Your task to perform on an android device: Clear the cart on bestbuy. Search for "bose soundlink" on bestbuy, select the first entry, add it to the cart, then select checkout. Image 0: 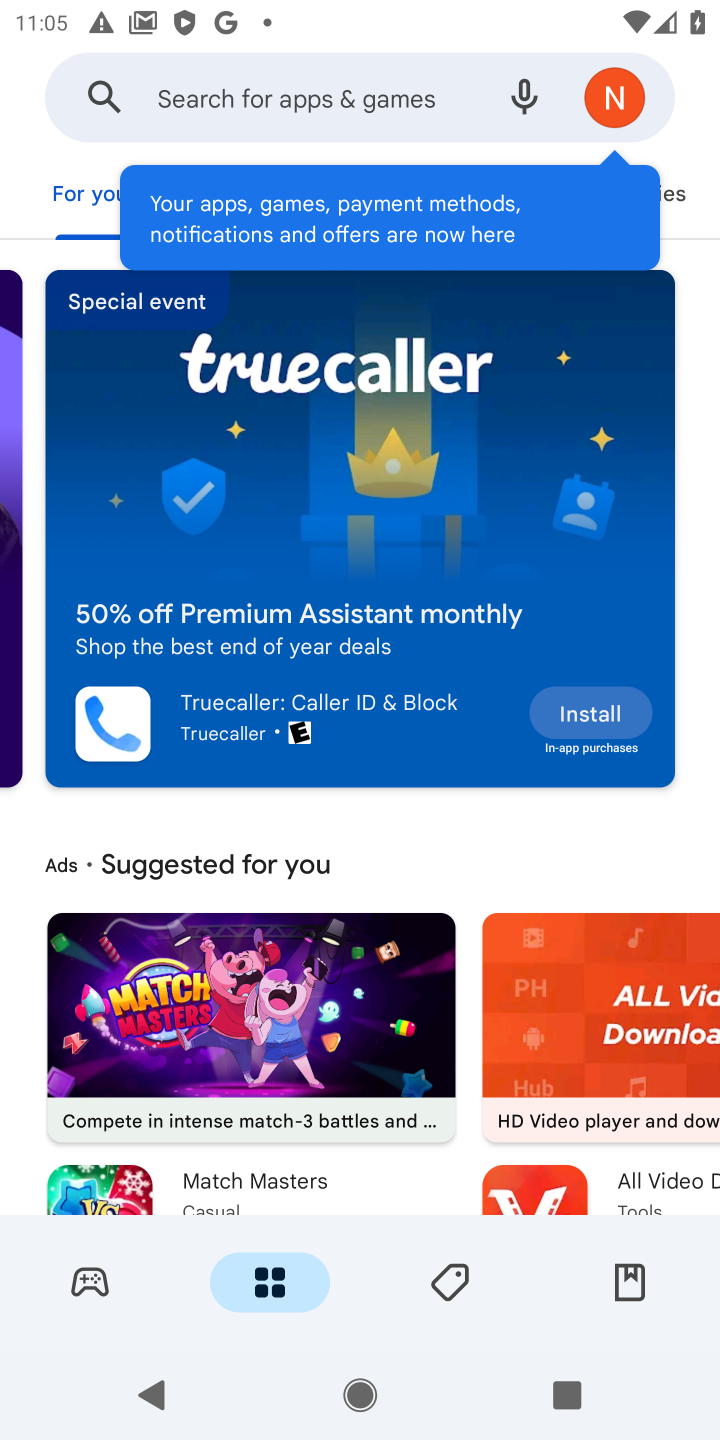
Step 0: press home button
Your task to perform on an android device: Clear the cart on bestbuy. Search for "bose soundlink" on bestbuy, select the first entry, add it to the cart, then select checkout. Image 1: 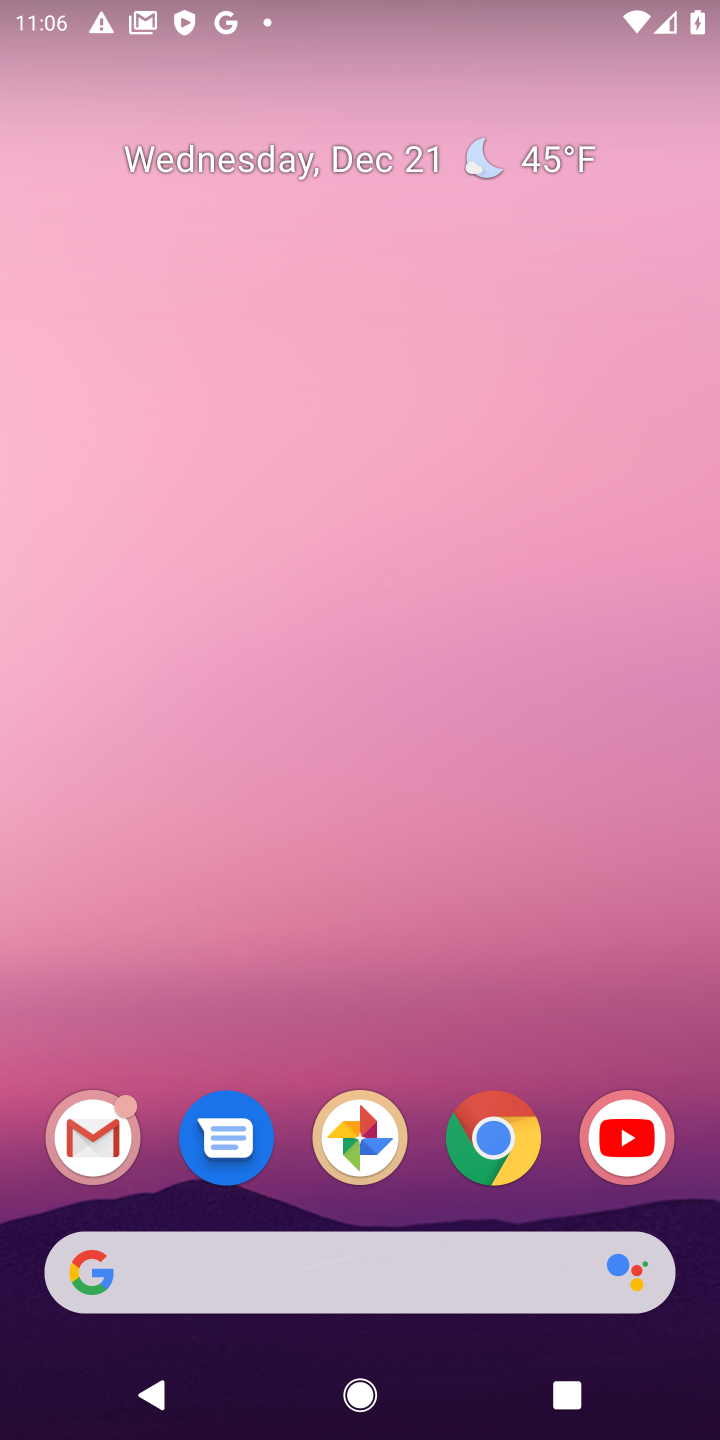
Step 1: click (501, 1144)
Your task to perform on an android device: Clear the cart on bestbuy. Search for "bose soundlink" on bestbuy, select the first entry, add it to the cart, then select checkout. Image 2: 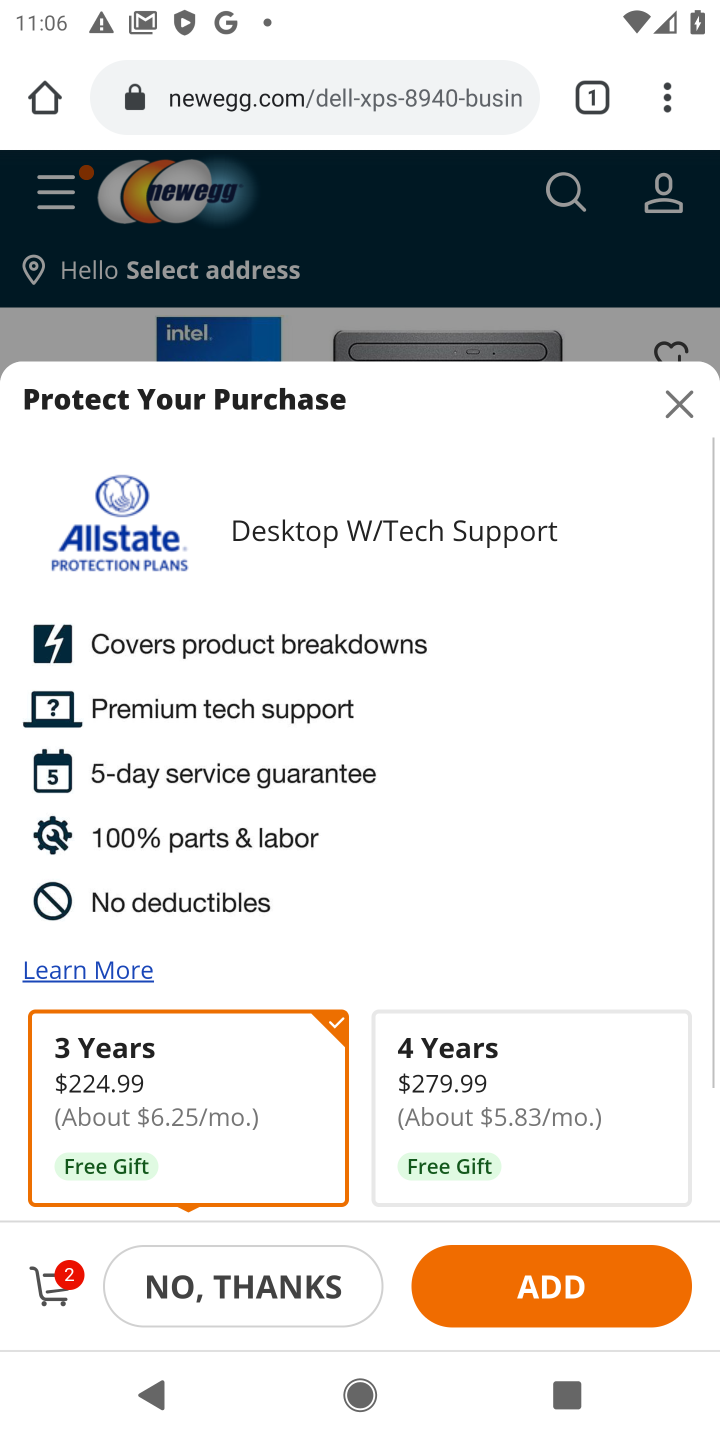
Step 2: click (263, 104)
Your task to perform on an android device: Clear the cart on bestbuy. Search for "bose soundlink" on bestbuy, select the first entry, add it to the cart, then select checkout. Image 3: 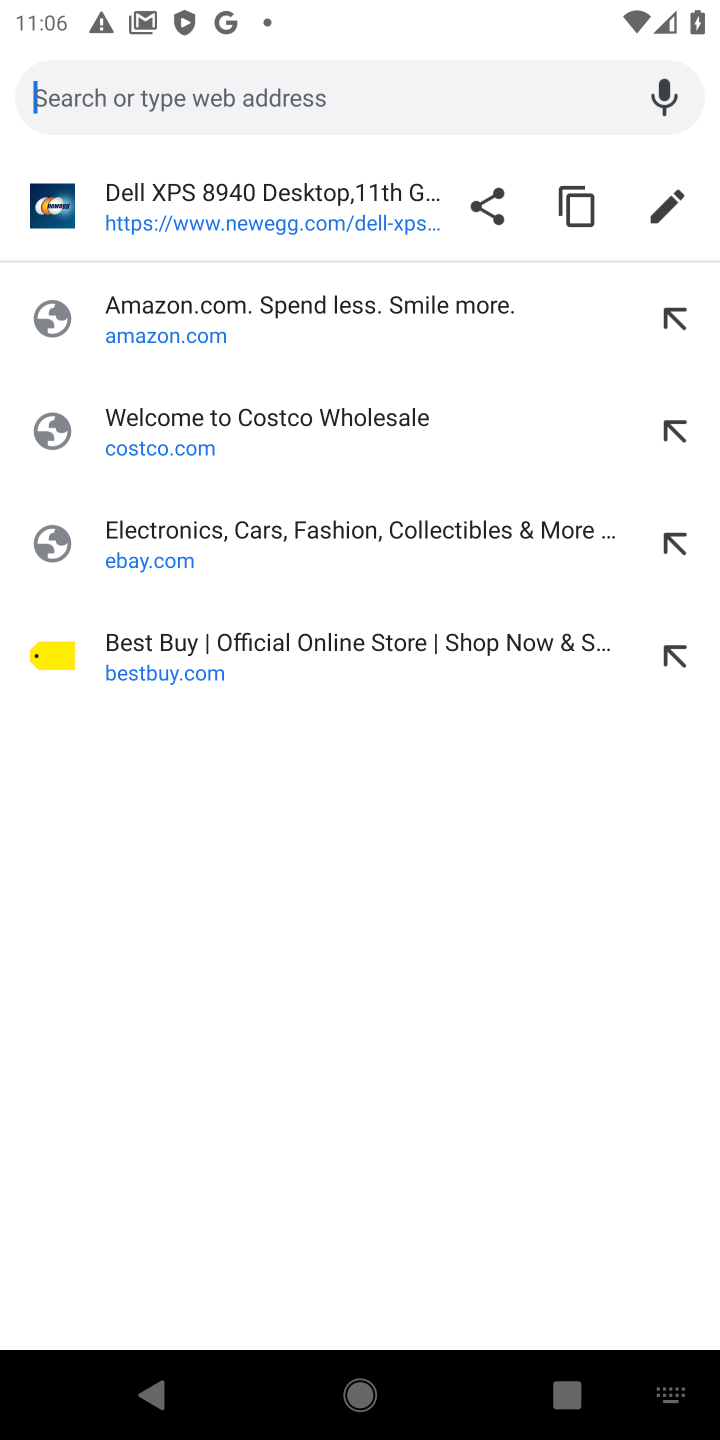
Step 3: click (146, 656)
Your task to perform on an android device: Clear the cart on bestbuy. Search for "bose soundlink" on bestbuy, select the first entry, add it to the cart, then select checkout. Image 4: 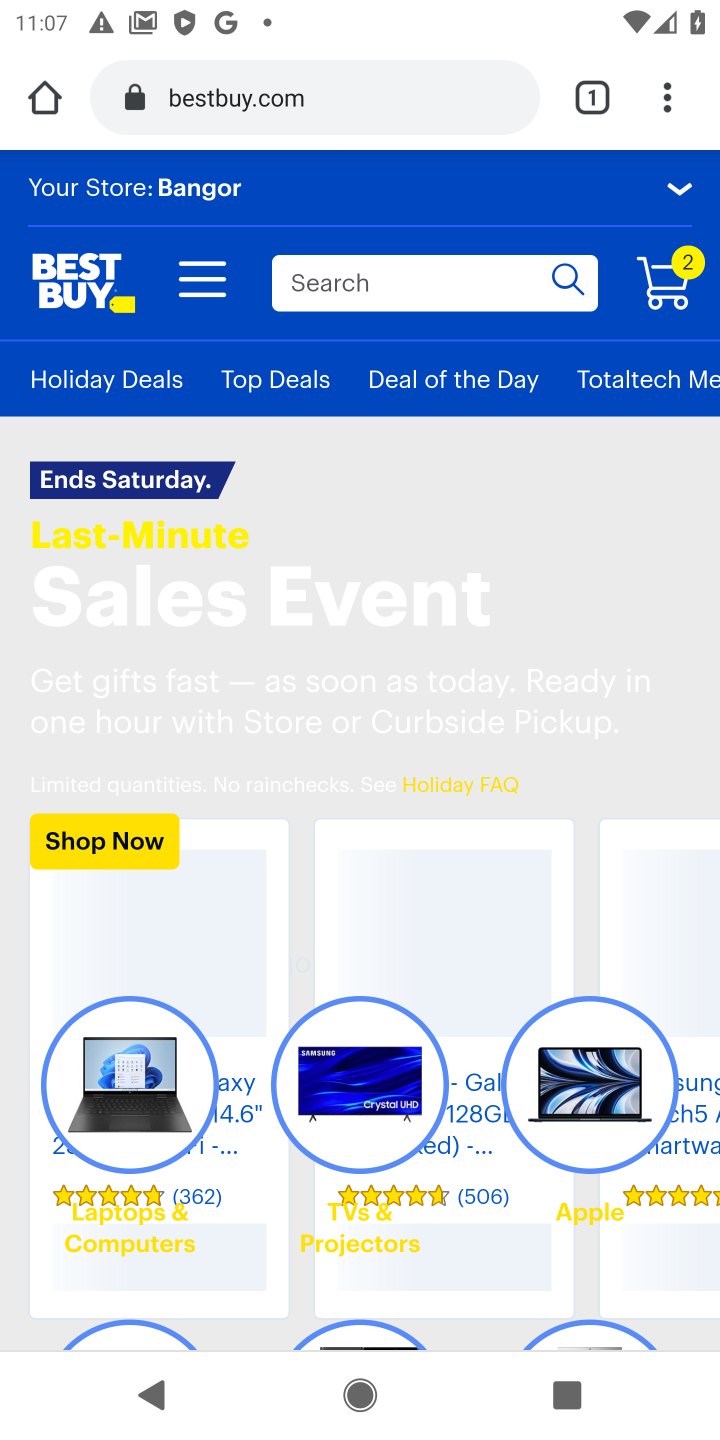
Step 4: click (675, 290)
Your task to perform on an android device: Clear the cart on bestbuy. Search for "bose soundlink" on bestbuy, select the first entry, add it to the cart, then select checkout. Image 5: 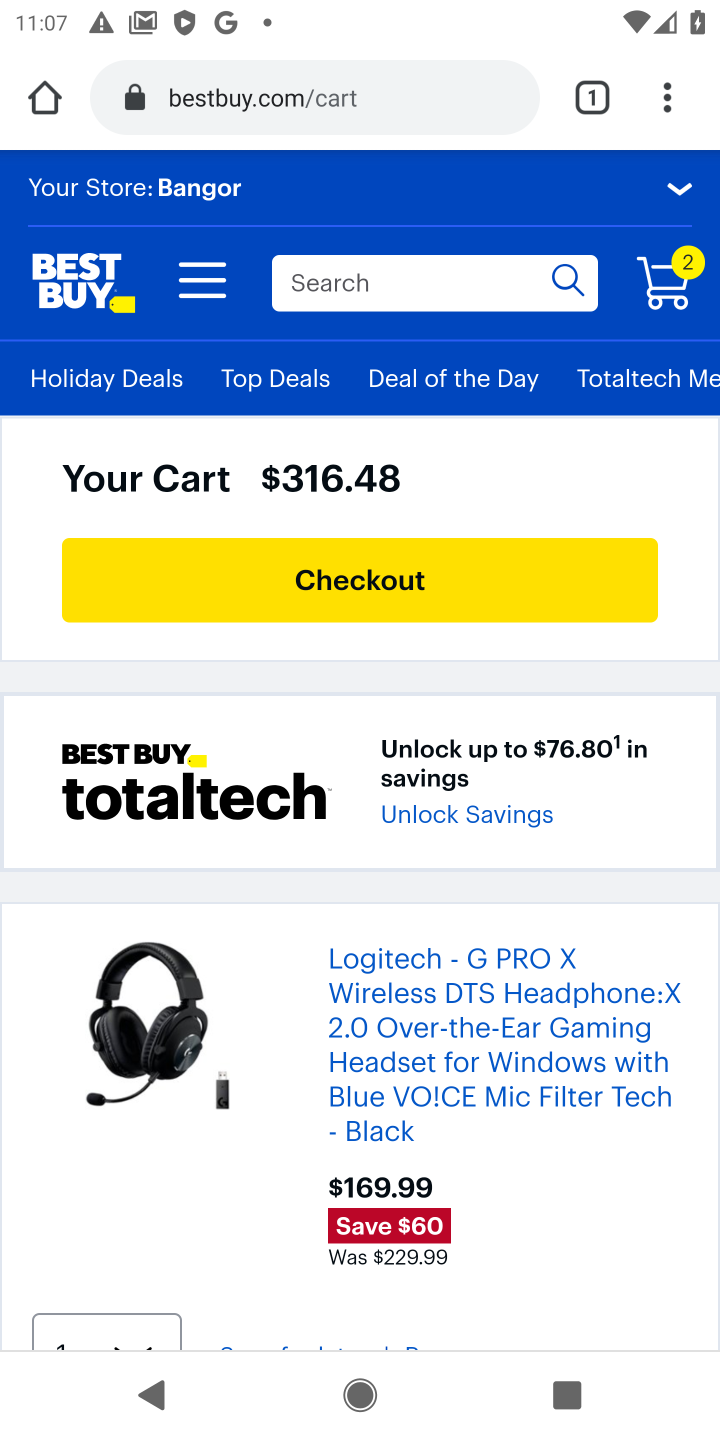
Step 5: drag from (295, 1074) to (372, 632)
Your task to perform on an android device: Clear the cart on bestbuy. Search for "bose soundlink" on bestbuy, select the first entry, add it to the cart, then select checkout. Image 6: 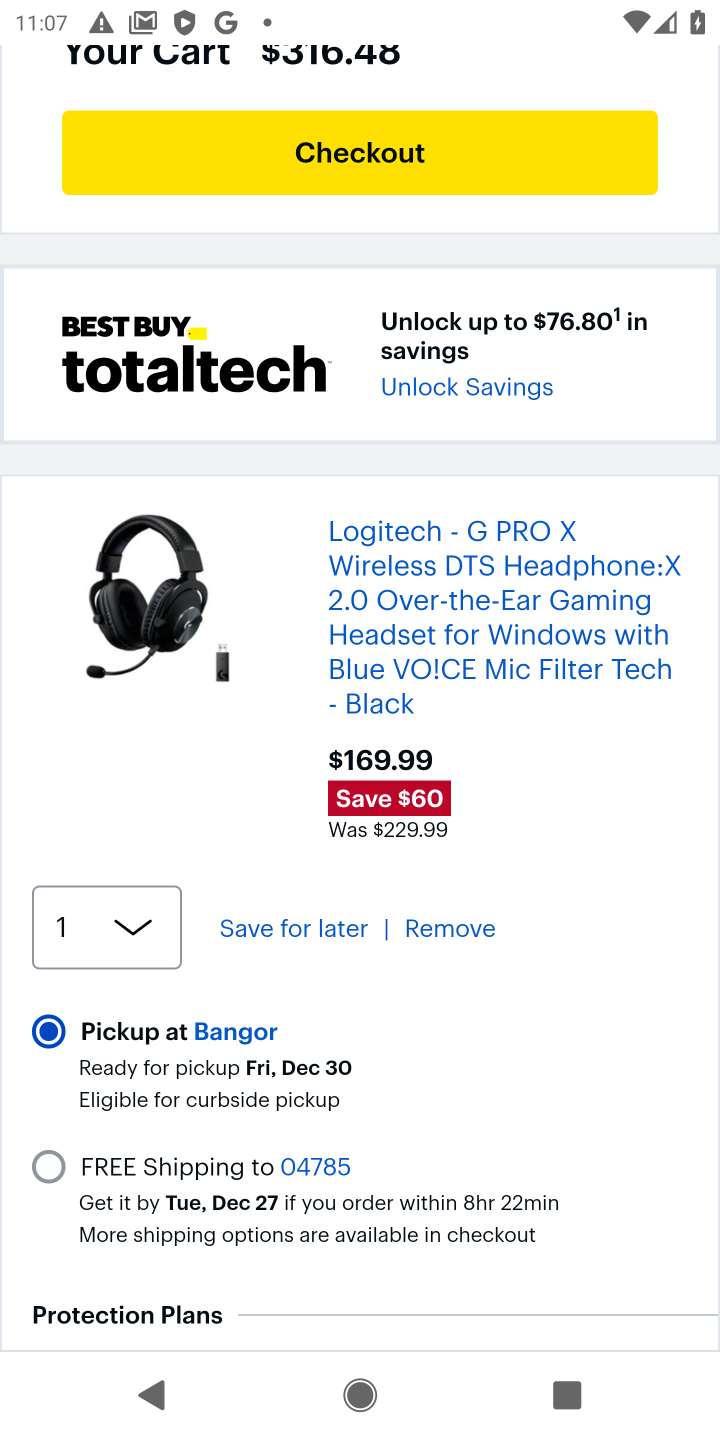
Step 6: click (444, 926)
Your task to perform on an android device: Clear the cart on bestbuy. Search for "bose soundlink" on bestbuy, select the first entry, add it to the cart, then select checkout. Image 7: 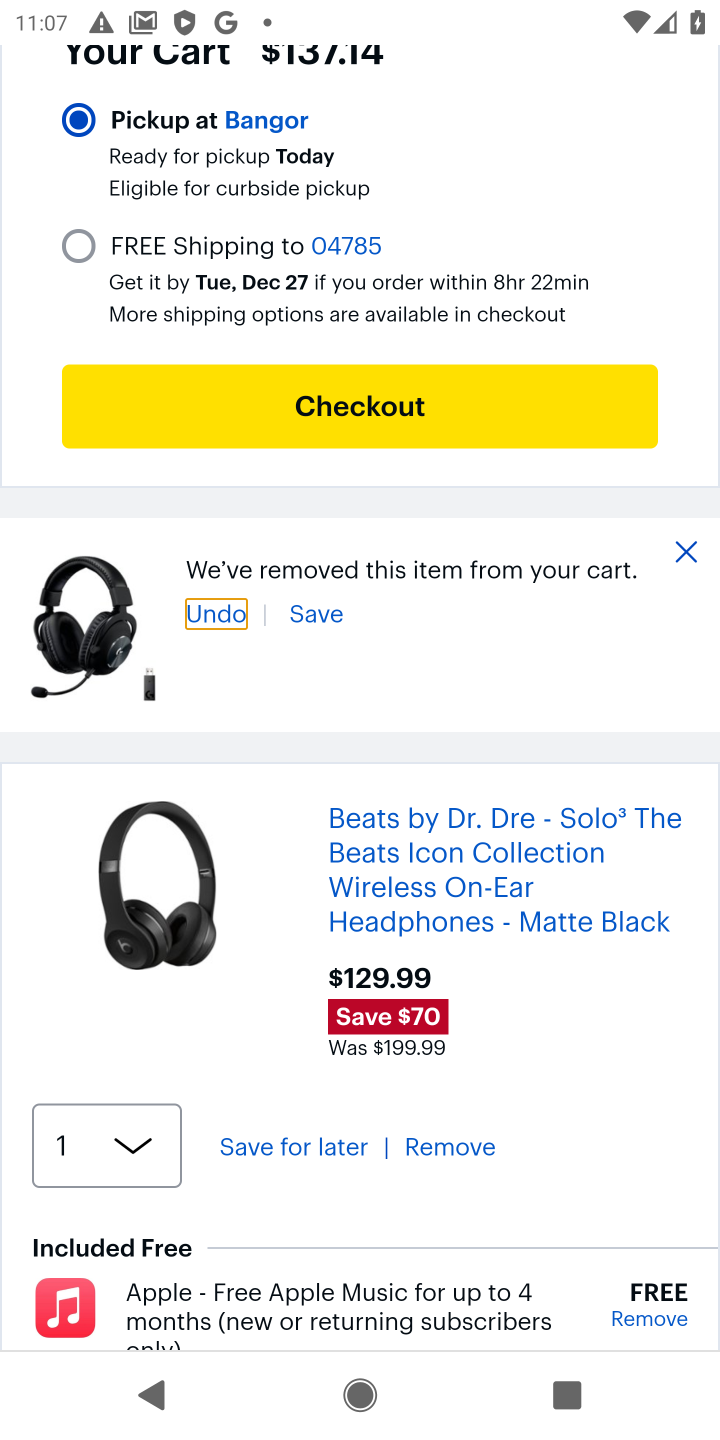
Step 7: drag from (432, 947) to (457, 530)
Your task to perform on an android device: Clear the cart on bestbuy. Search for "bose soundlink" on bestbuy, select the first entry, add it to the cart, then select checkout. Image 8: 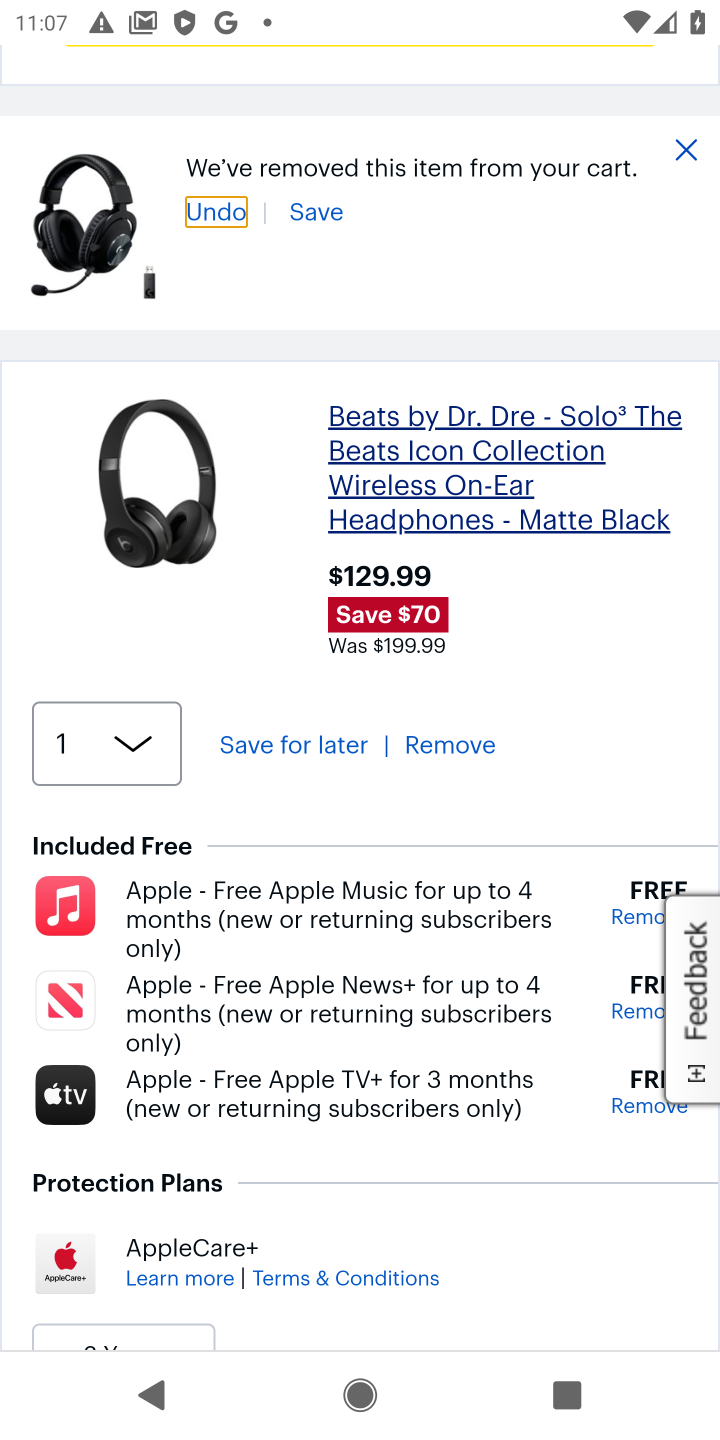
Step 8: click (449, 746)
Your task to perform on an android device: Clear the cart on bestbuy. Search for "bose soundlink" on bestbuy, select the first entry, add it to the cart, then select checkout. Image 9: 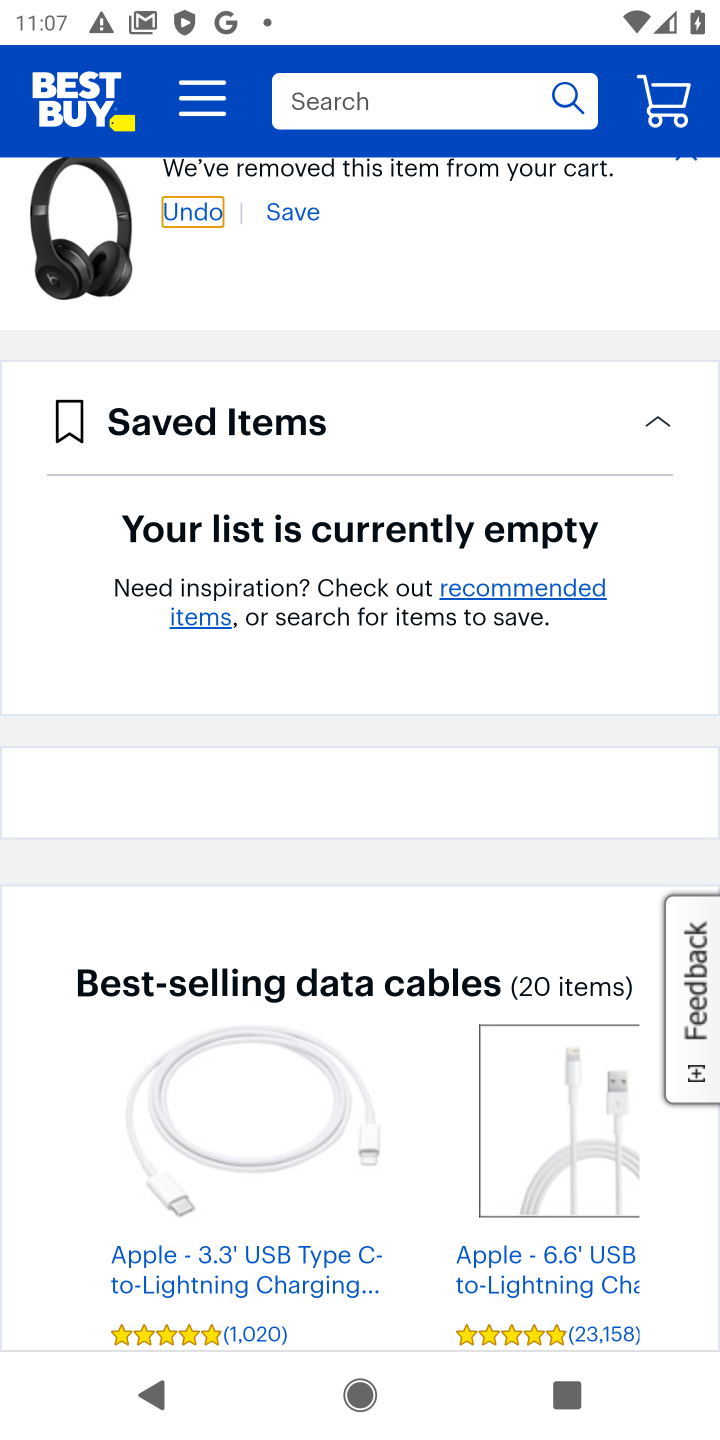
Step 9: drag from (283, 583) to (285, 940)
Your task to perform on an android device: Clear the cart on bestbuy. Search for "bose soundlink" on bestbuy, select the first entry, add it to the cart, then select checkout. Image 10: 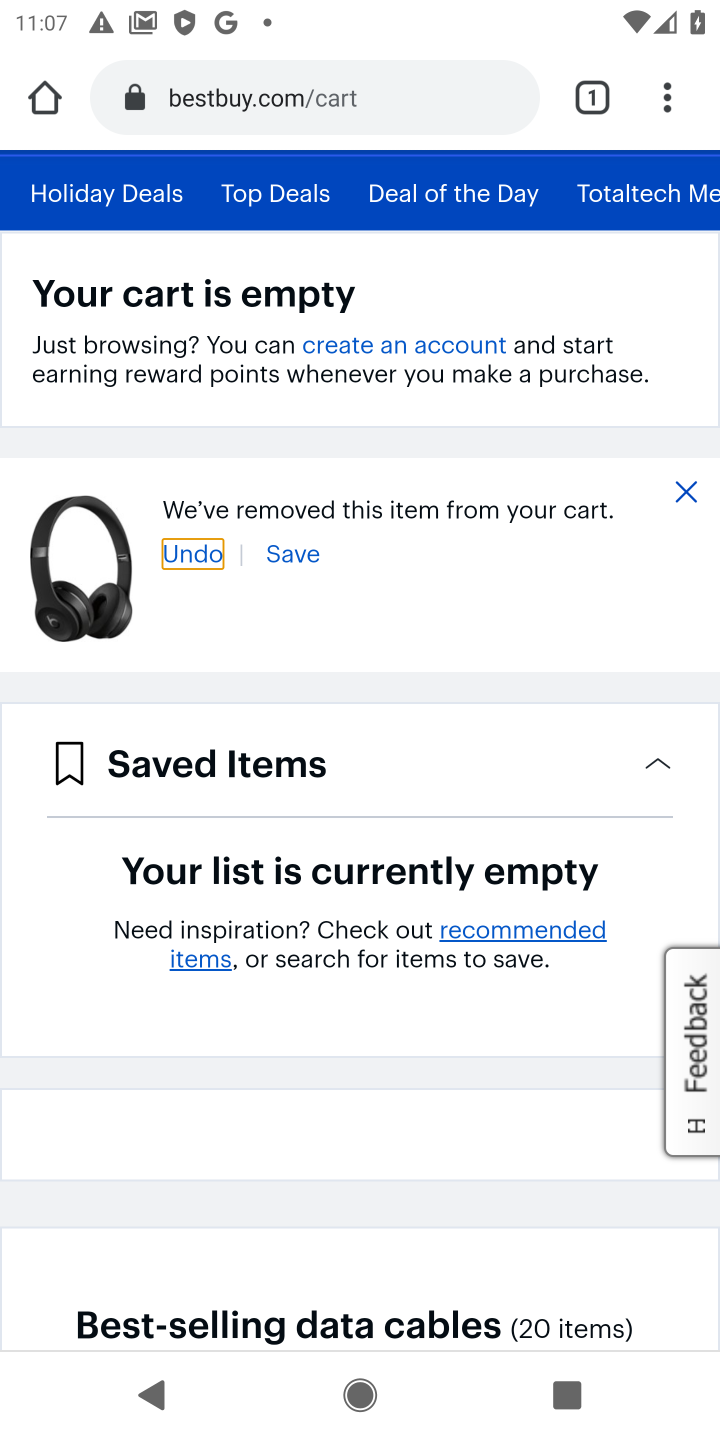
Step 10: drag from (356, 376) to (351, 755)
Your task to perform on an android device: Clear the cart on bestbuy. Search for "bose soundlink" on bestbuy, select the first entry, add it to the cart, then select checkout. Image 11: 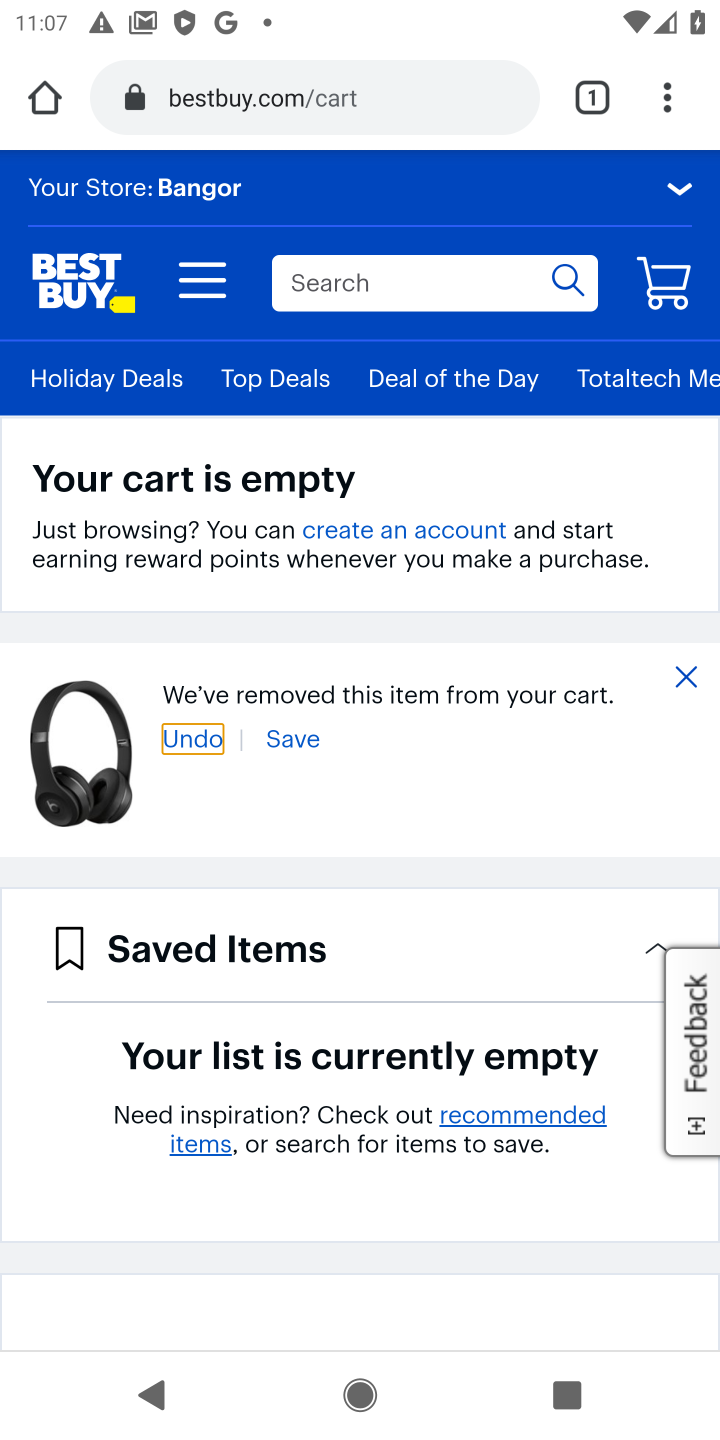
Step 11: click (305, 282)
Your task to perform on an android device: Clear the cart on bestbuy. Search for "bose soundlink" on bestbuy, select the first entry, add it to the cart, then select checkout. Image 12: 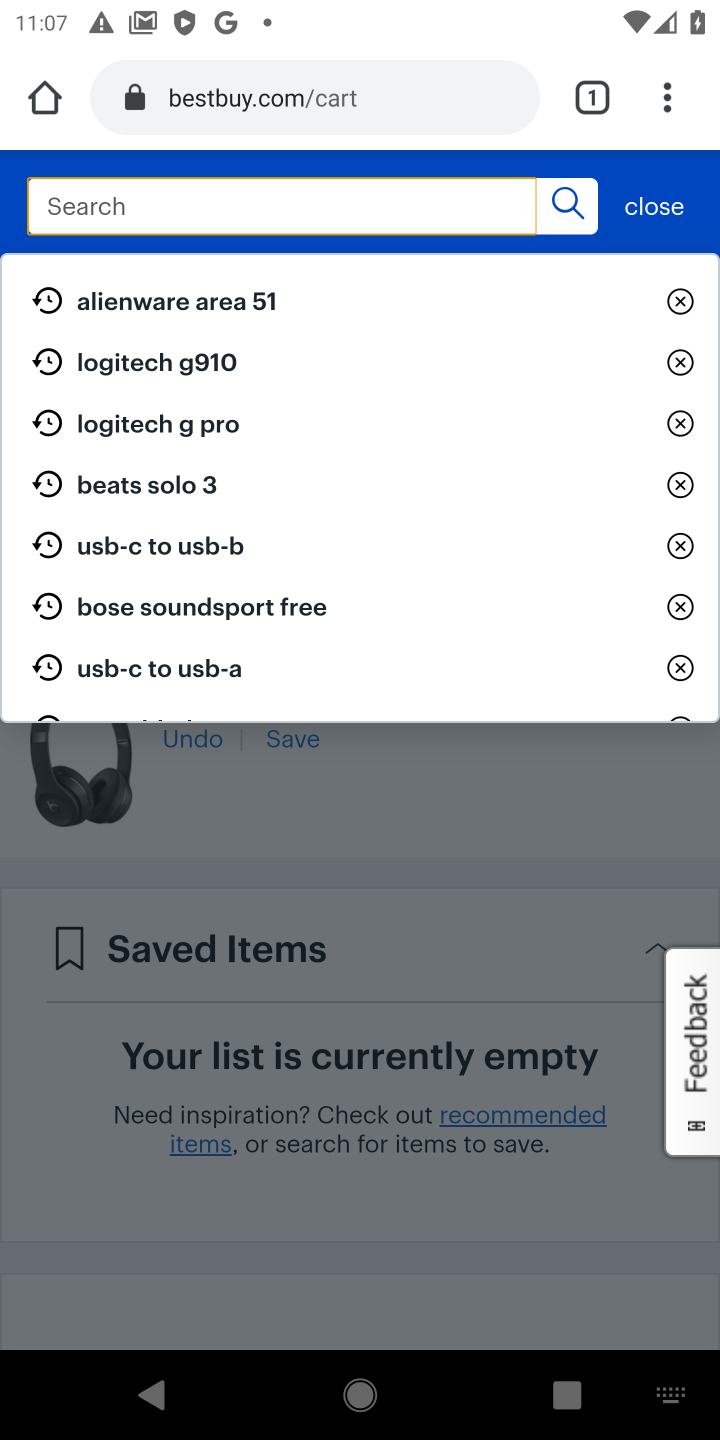
Step 12: type "bose soundlink"
Your task to perform on an android device: Clear the cart on bestbuy. Search for "bose soundlink" on bestbuy, select the first entry, add it to the cart, then select checkout. Image 13: 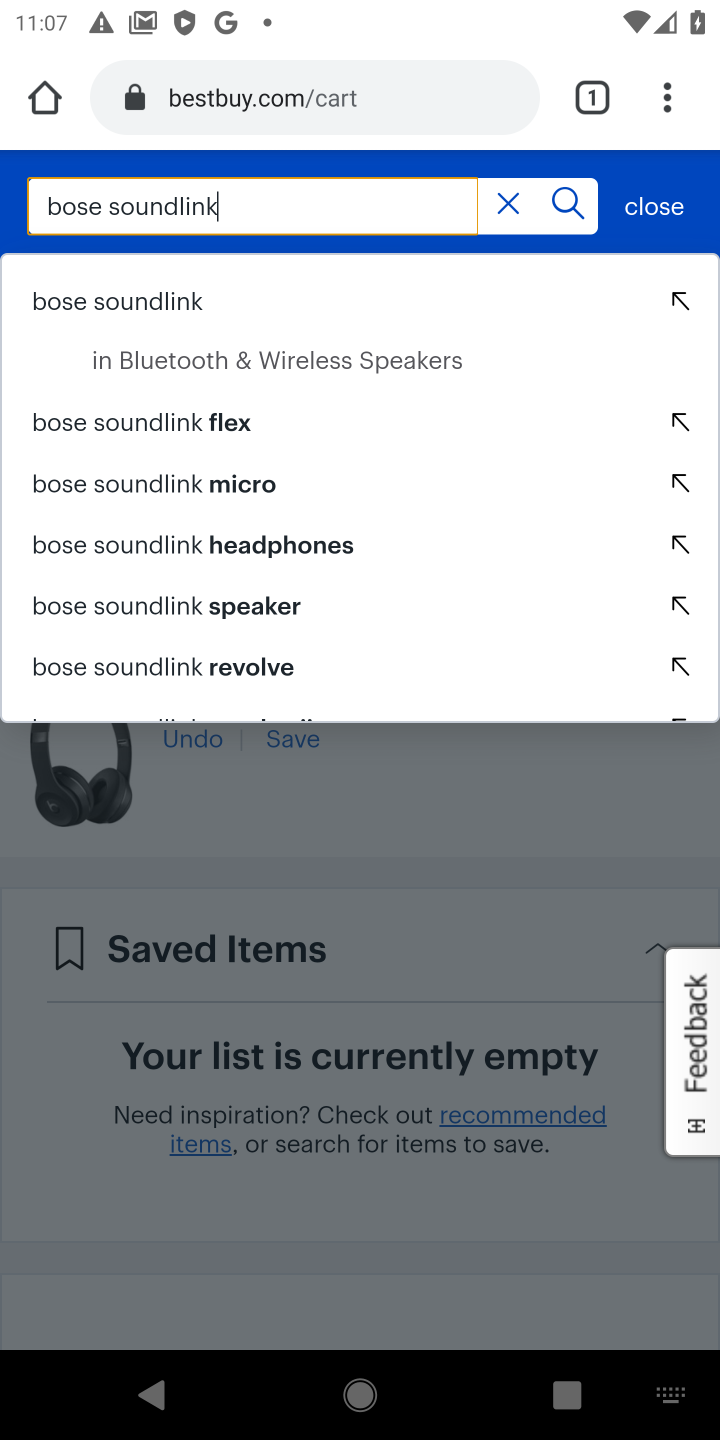
Step 13: click (138, 305)
Your task to perform on an android device: Clear the cart on bestbuy. Search for "bose soundlink" on bestbuy, select the first entry, add it to the cart, then select checkout. Image 14: 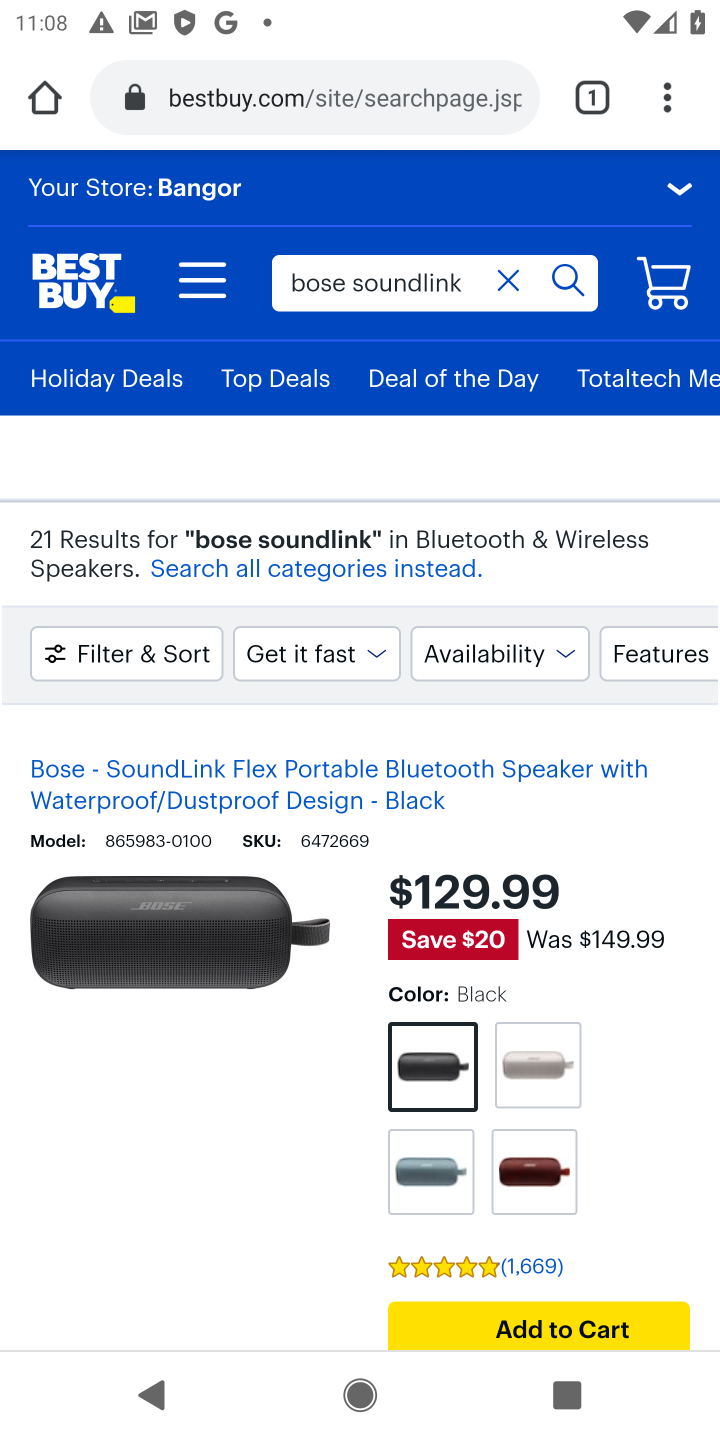
Step 14: drag from (275, 1003) to (350, 531)
Your task to perform on an android device: Clear the cart on bestbuy. Search for "bose soundlink" on bestbuy, select the first entry, add it to the cart, then select checkout. Image 15: 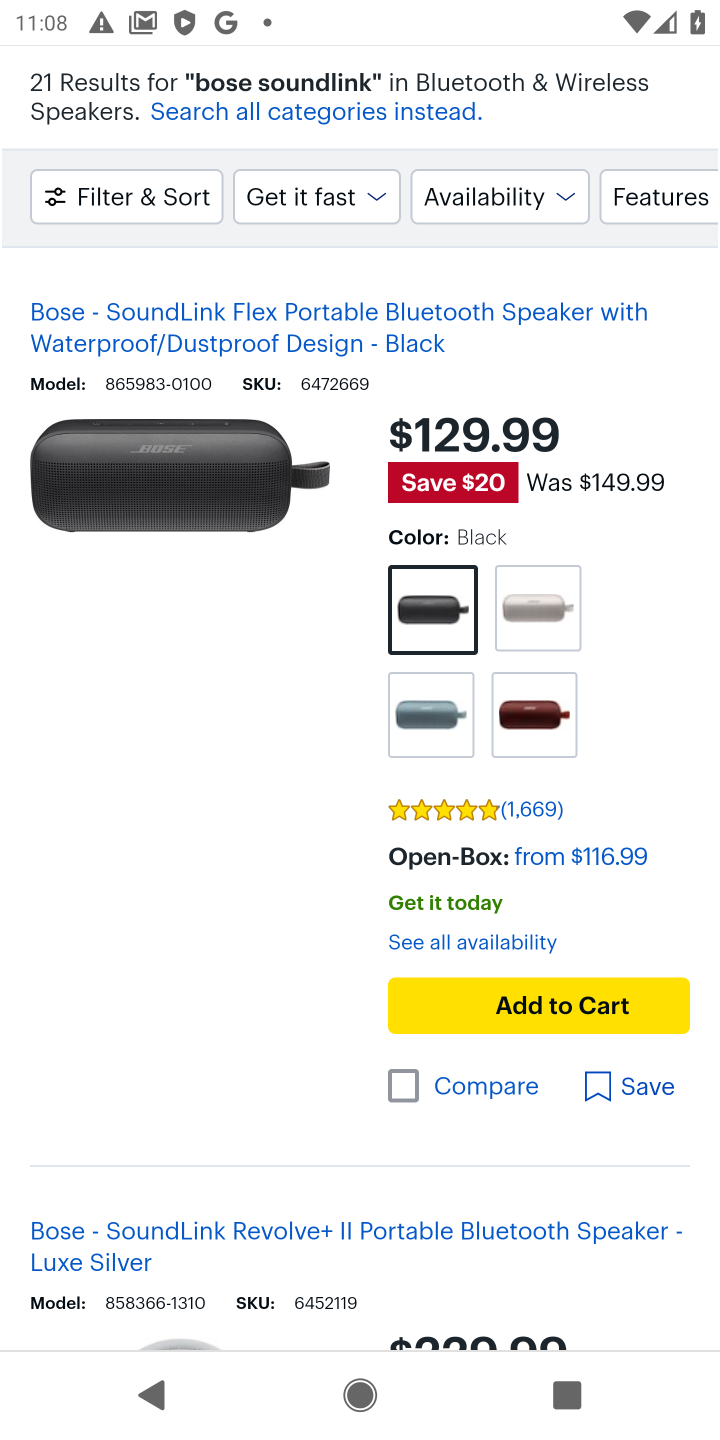
Step 15: click (502, 873)
Your task to perform on an android device: Clear the cart on bestbuy. Search for "bose soundlink" on bestbuy, select the first entry, add it to the cart, then select checkout. Image 16: 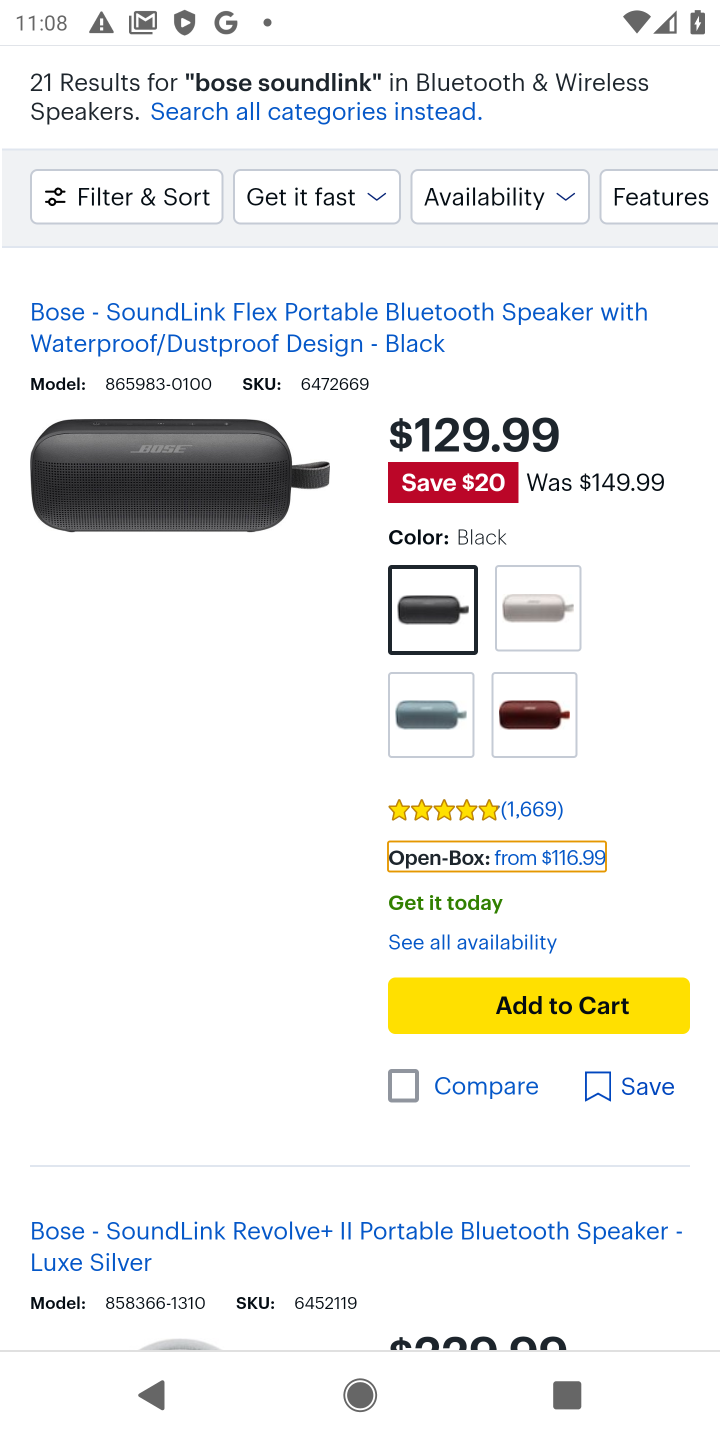
Step 16: click (486, 1004)
Your task to perform on an android device: Clear the cart on bestbuy. Search for "bose soundlink" on bestbuy, select the first entry, add it to the cart, then select checkout. Image 17: 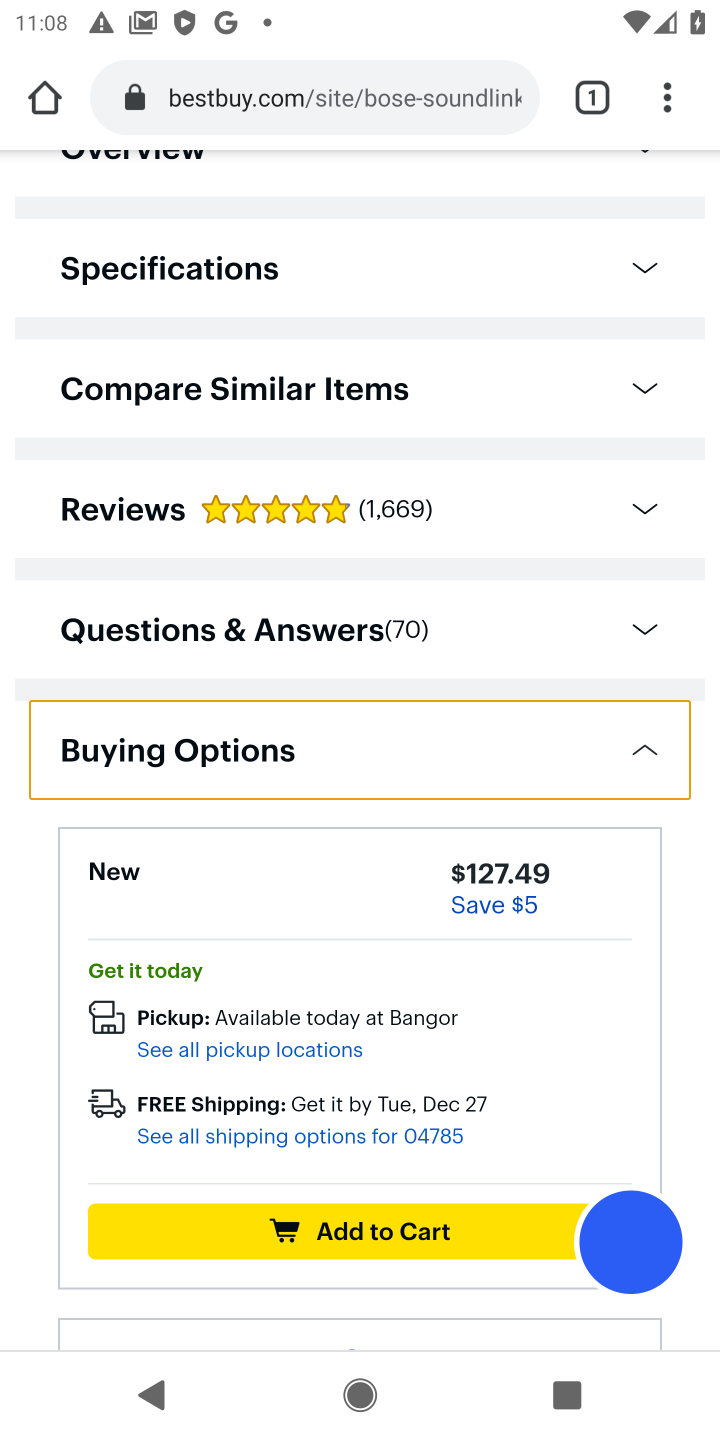
Step 17: press back button
Your task to perform on an android device: Clear the cart on bestbuy. Search for "bose soundlink" on bestbuy, select the first entry, add it to the cart, then select checkout. Image 18: 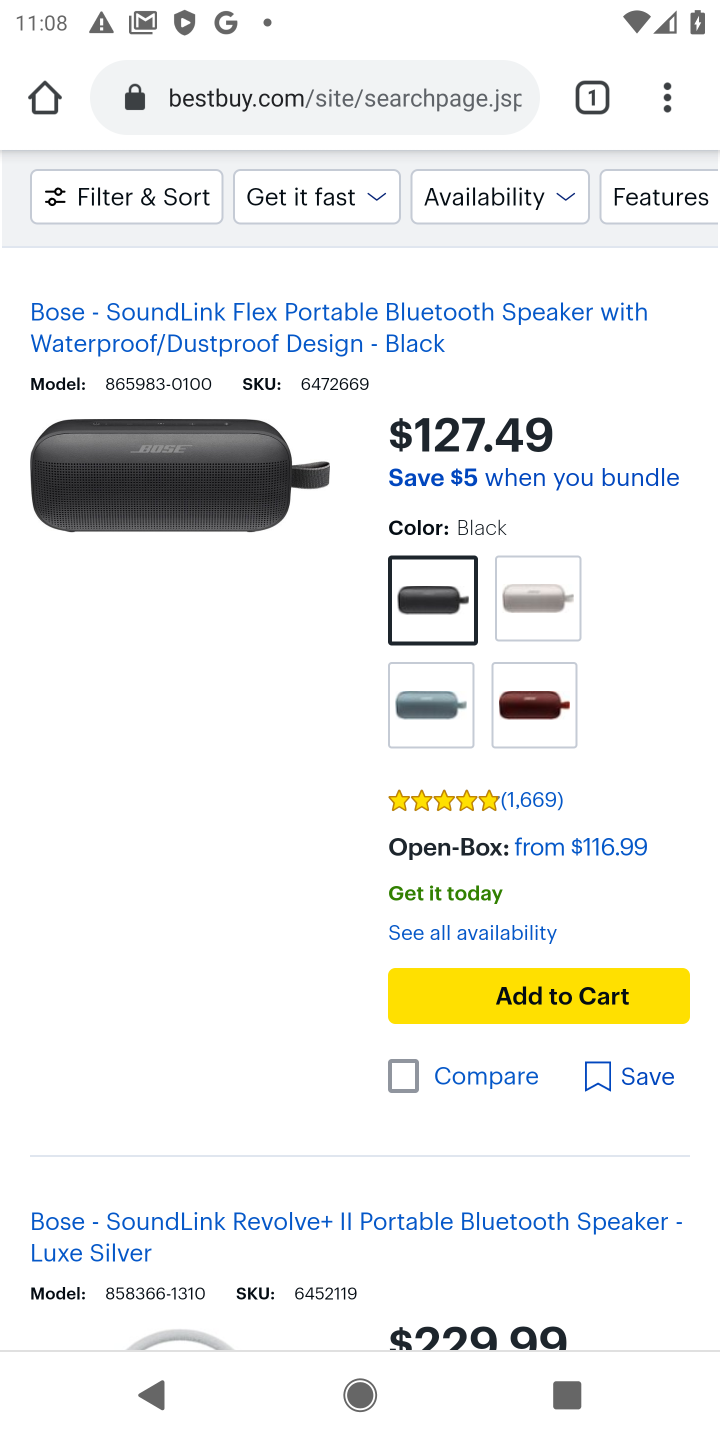
Step 18: click (545, 1000)
Your task to perform on an android device: Clear the cart on bestbuy. Search for "bose soundlink" on bestbuy, select the first entry, add it to the cart, then select checkout. Image 19: 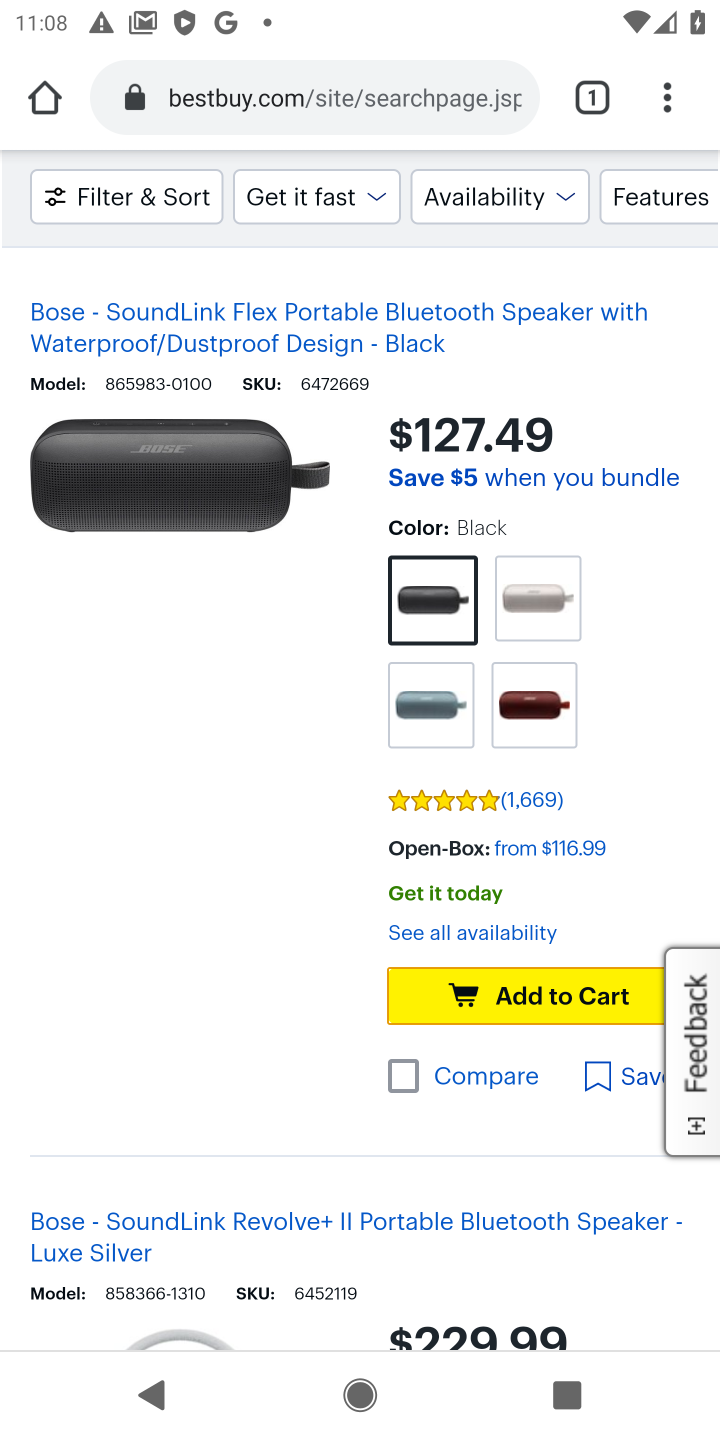
Step 19: click (537, 992)
Your task to perform on an android device: Clear the cart on bestbuy. Search for "bose soundlink" on bestbuy, select the first entry, add it to the cart, then select checkout. Image 20: 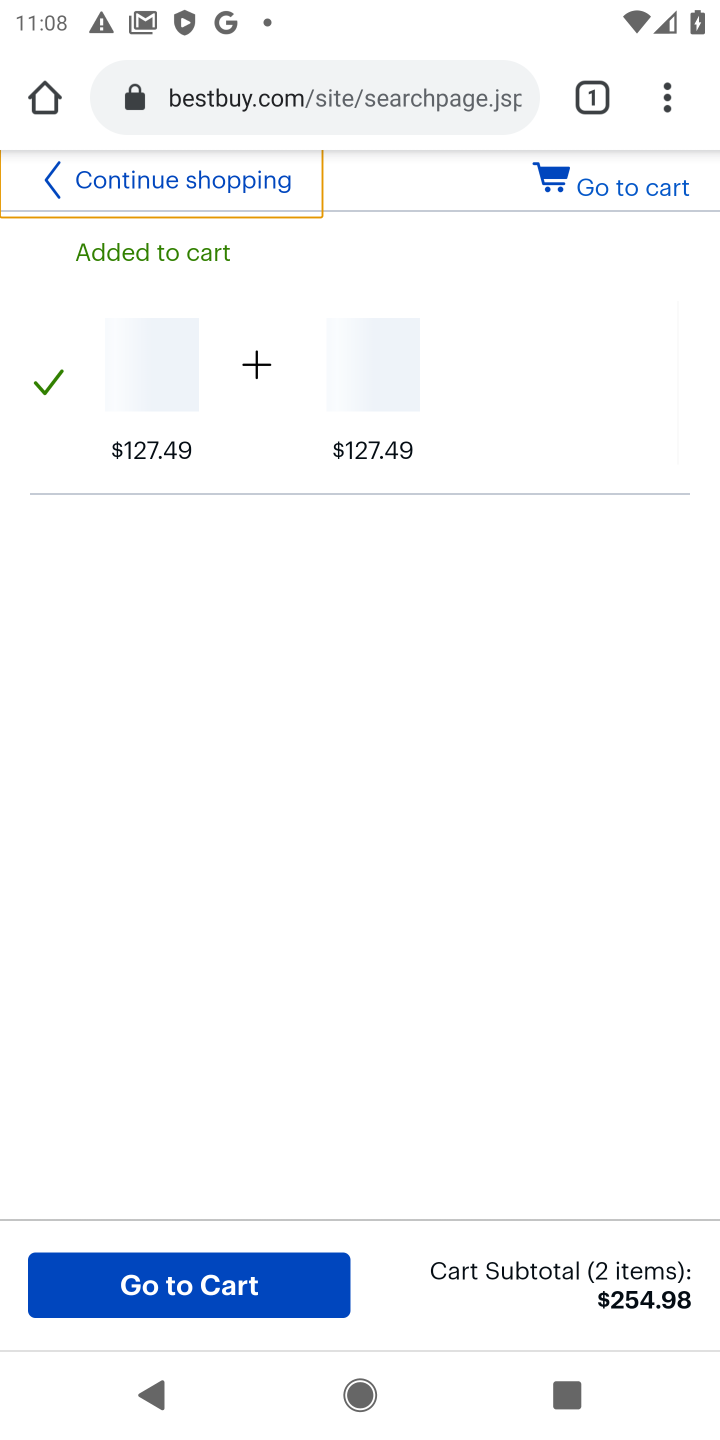
Step 20: click (650, 191)
Your task to perform on an android device: Clear the cart on bestbuy. Search for "bose soundlink" on bestbuy, select the first entry, add it to the cart, then select checkout. Image 21: 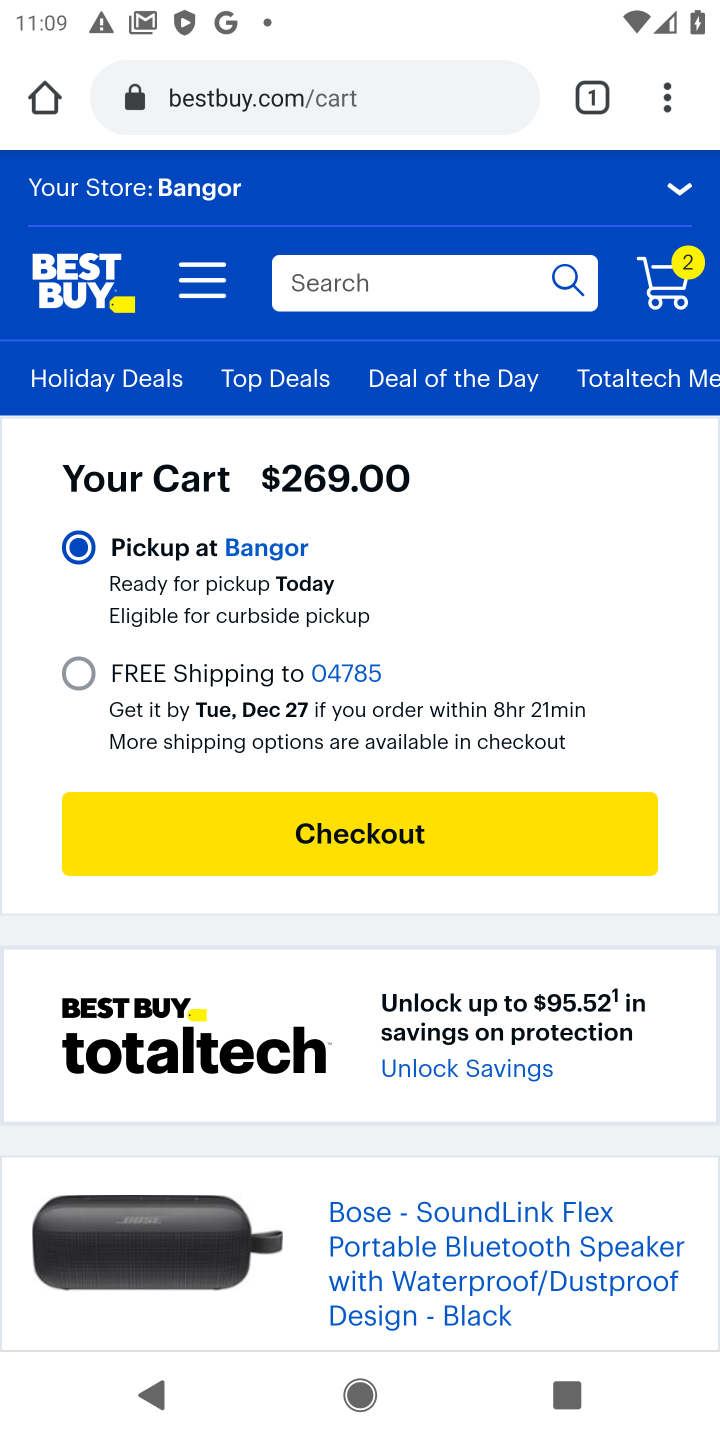
Step 21: click (324, 838)
Your task to perform on an android device: Clear the cart on bestbuy. Search for "bose soundlink" on bestbuy, select the first entry, add it to the cart, then select checkout. Image 22: 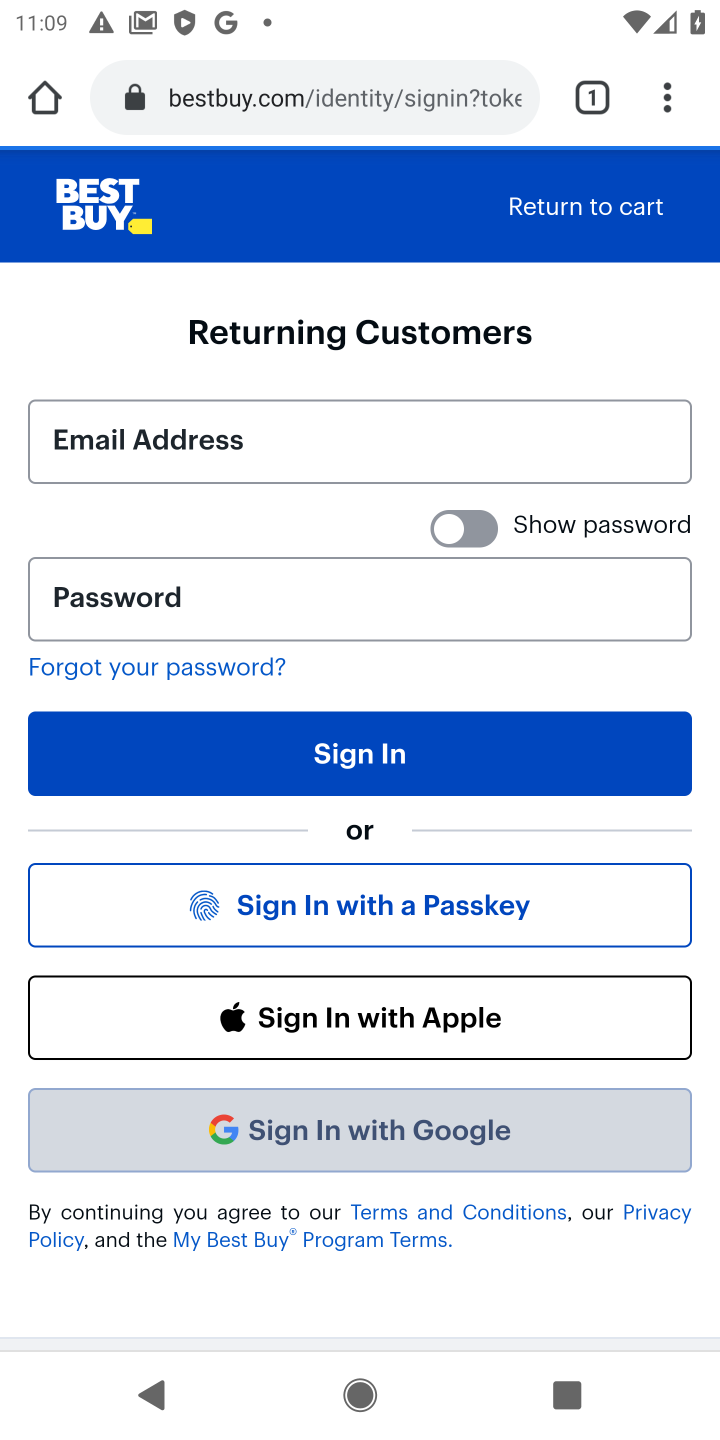
Step 22: task complete